Your task to perform on an android device: open a bookmark in the chrome app Image 0: 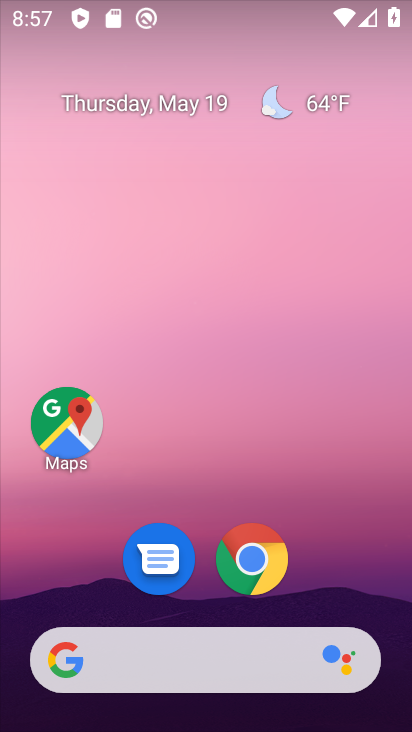
Step 0: click (255, 542)
Your task to perform on an android device: open a bookmark in the chrome app Image 1: 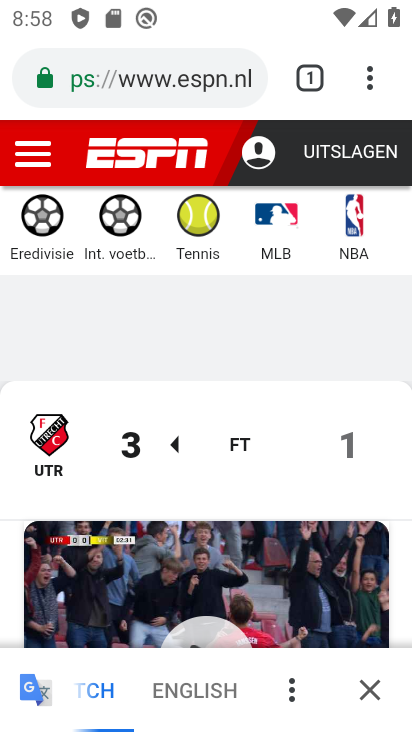
Step 1: click (365, 82)
Your task to perform on an android device: open a bookmark in the chrome app Image 2: 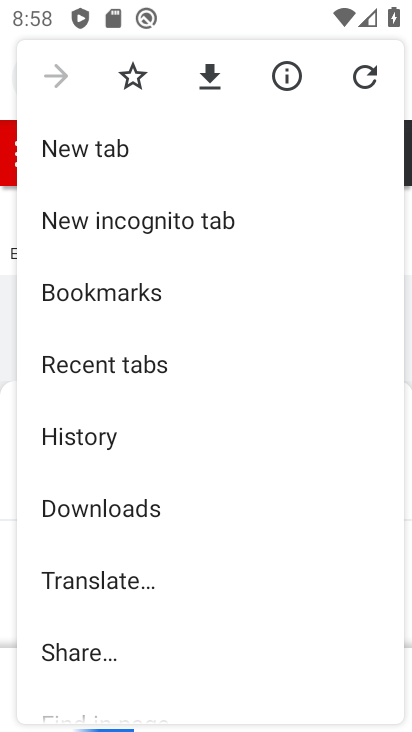
Step 2: click (109, 286)
Your task to perform on an android device: open a bookmark in the chrome app Image 3: 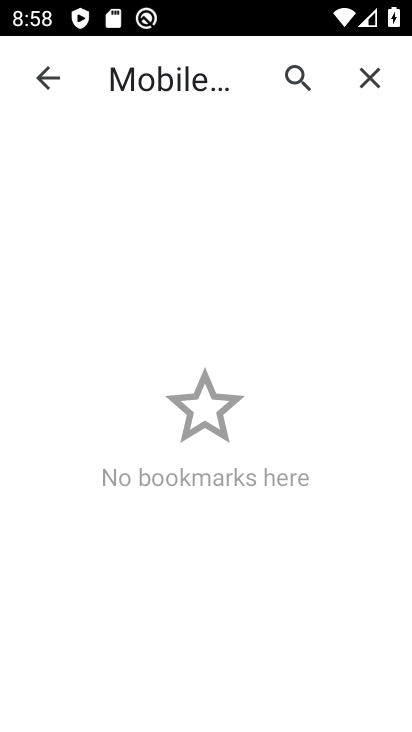
Step 3: task complete